Your task to perform on an android device: add a contact in the contacts app Image 0: 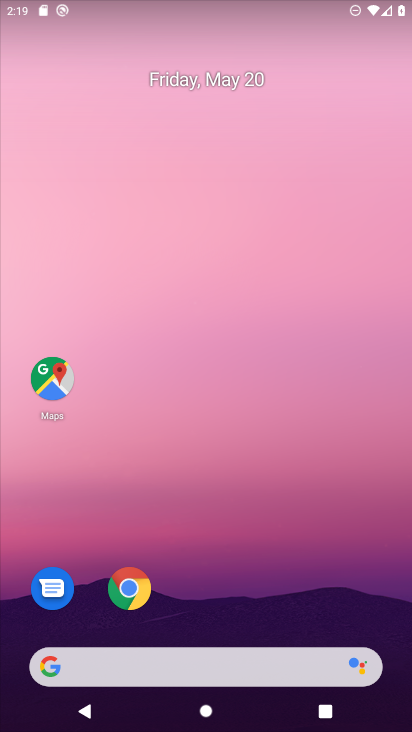
Step 0: drag from (390, 636) to (323, 114)
Your task to perform on an android device: add a contact in the contacts app Image 1: 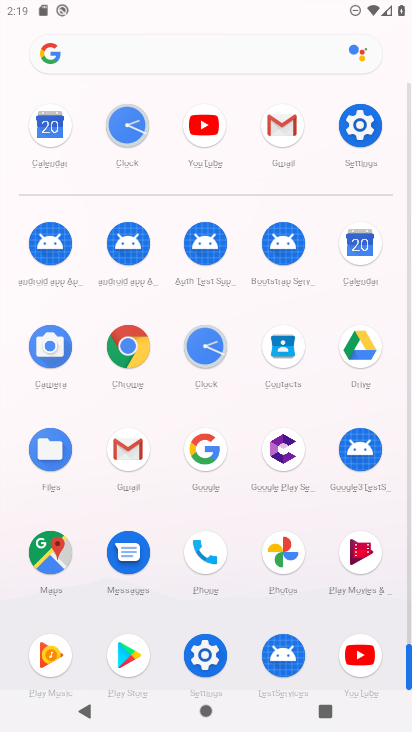
Step 1: click (282, 349)
Your task to perform on an android device: add a contact in the contacts app Image 2: 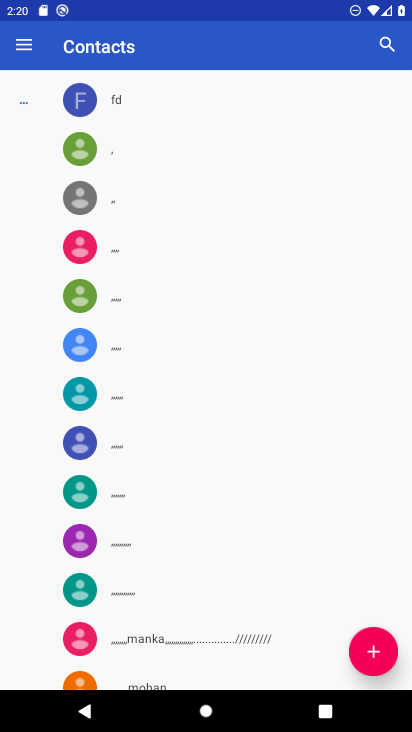
Step 2: click (373, 652)
Your task to perform on an android device: add a contact in the contacts app Image 3: 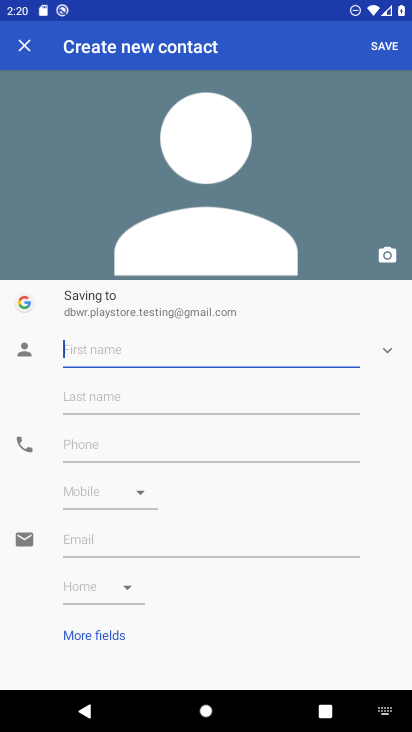
Step 3: type "irewsfhop"
Your task to perform on an android device: add a contact in the contacts app Image 4: 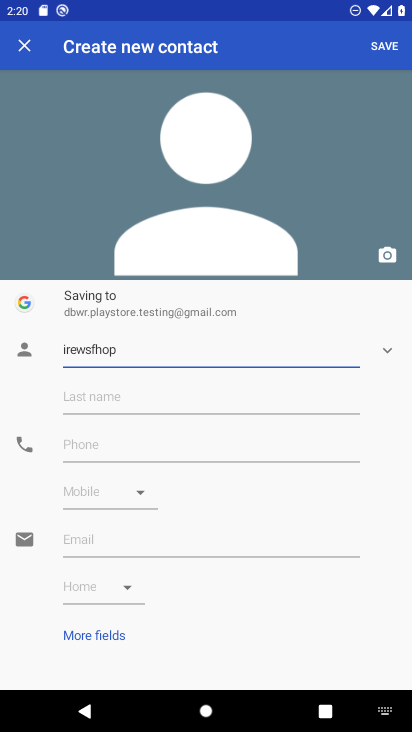
Step 4: click (144, 451)
Your task to perform on an android device: add a contact in the contacts app Image 5: 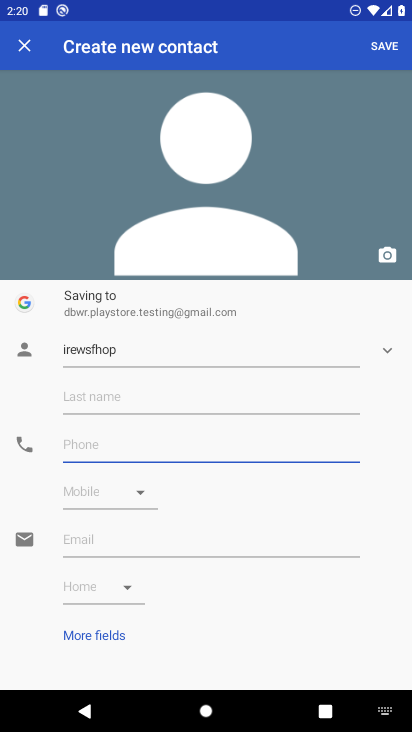
Step 5: type "9012456890"
Your task to perform on an android device: add a contact in the contacts app Image 6: 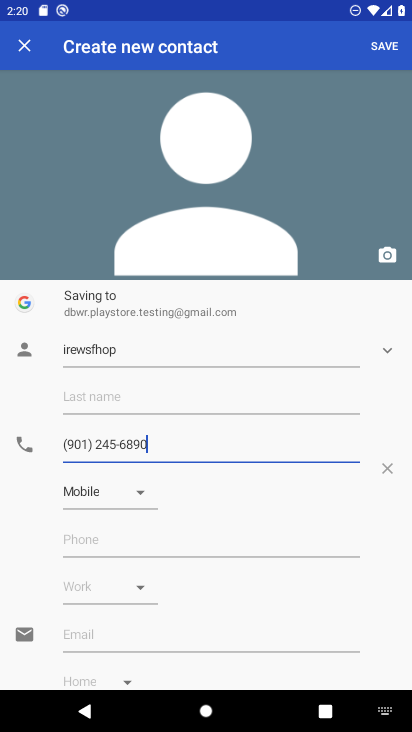
Step 6: click (144, 495)
Your task to perform on an android device: add a contact in the contacts app Image 7: 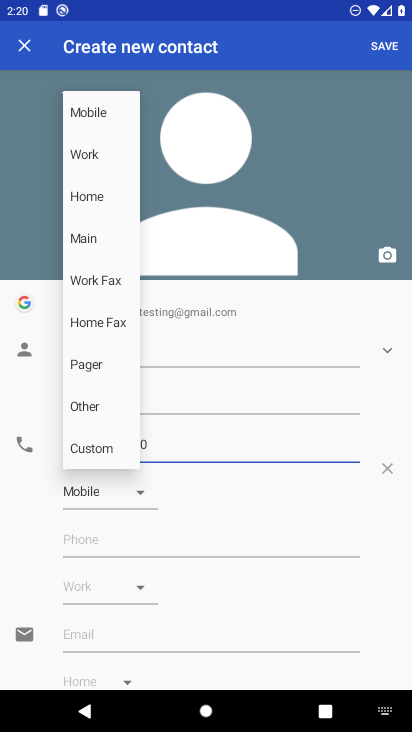
Step 7: click (85, 157)
Your task to perform on an android device: add a contact in the contacts app Image 8: 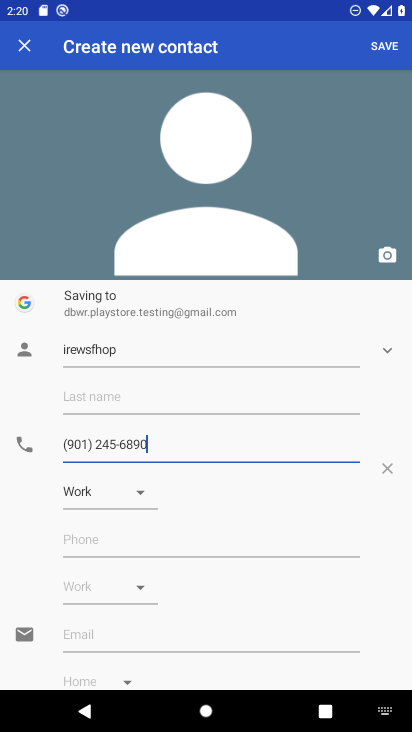
Step 8: click (374, 47)
Your task to perform on an android device: add a contact in the contacts app Image 9: 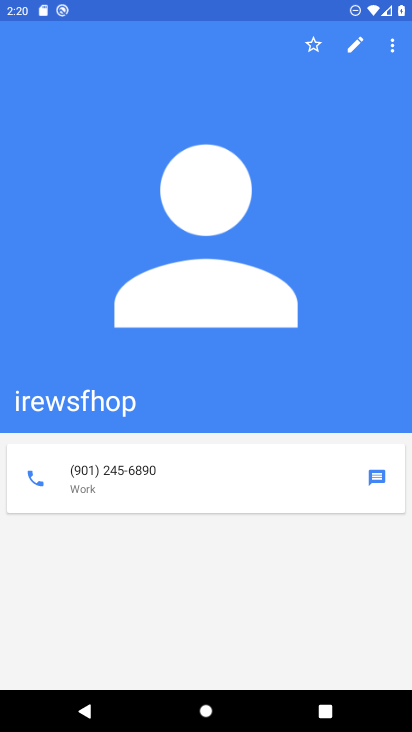
Step 9: task complete